Your task to perform on an android device: check battery use Image 0: 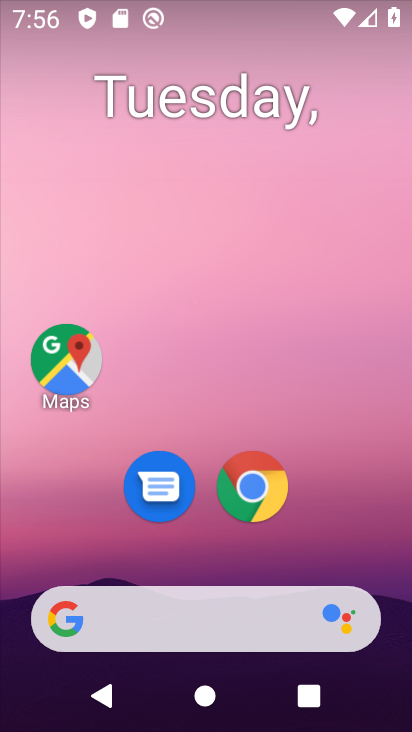
Step 0: drag from (253, 611) to (165, 36)
Your task to perform on an android device: check battery use Image 1: 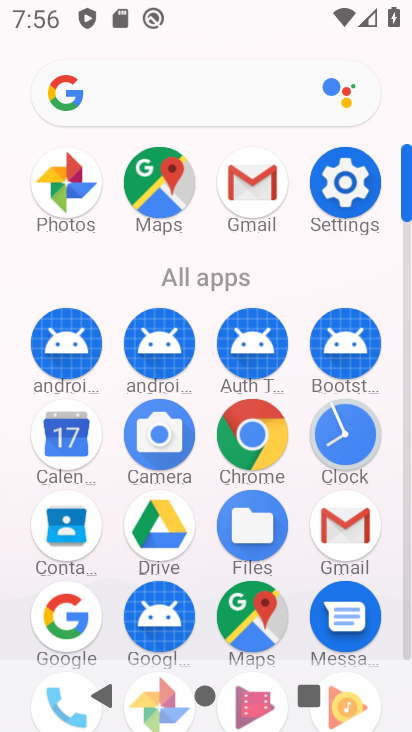
Step 1: click (364, 204)
Your task to perform on an android device: check battery use Image 2: 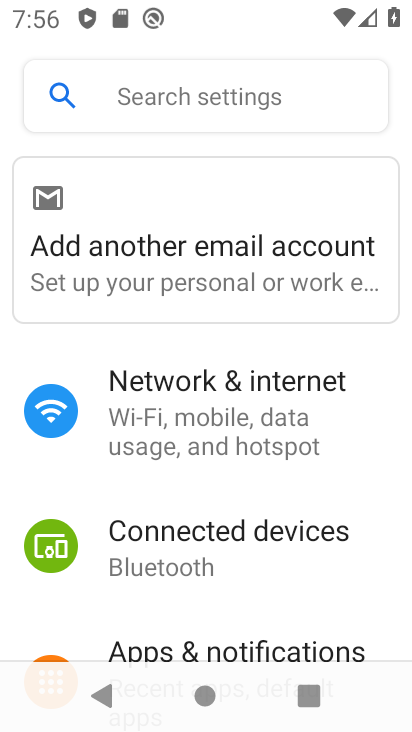
Step 2: drag from (290, 568) to (312, 89)
Your task to perform on an android device: check battery use Image 3: 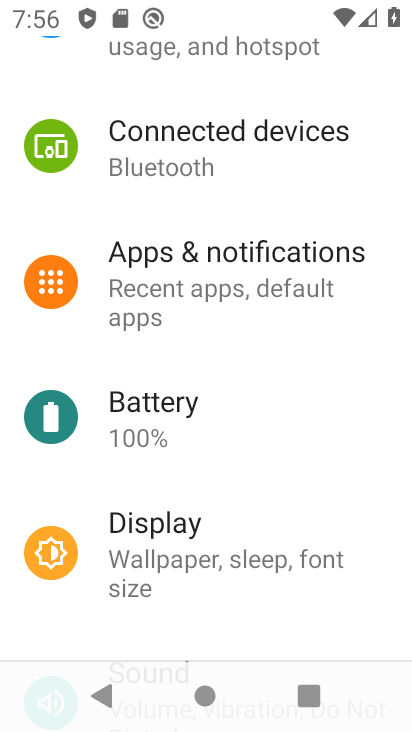
Step 3: click (292, 429)
Your task to perform on an android device: check battery use Image 4: 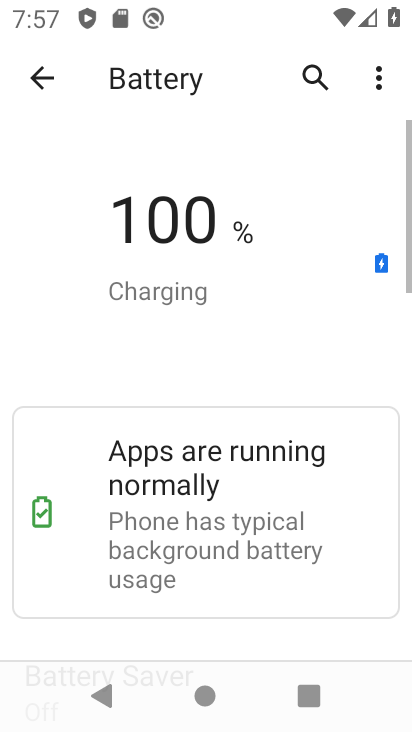
Step 4: drag from (298, 554) to (280, 118)
Your task to perform on an android device: check battery use Image 5: 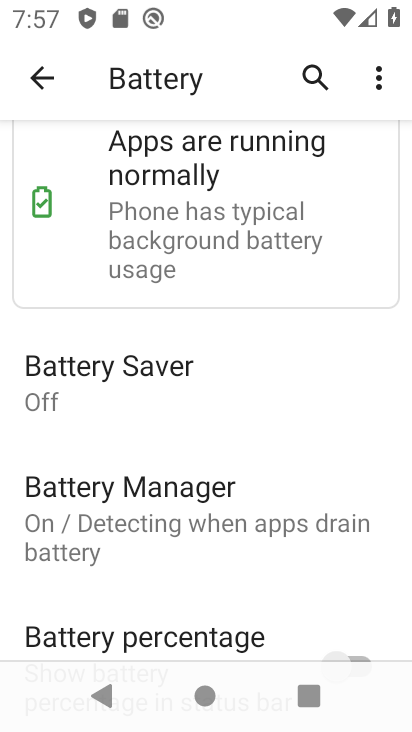
Step 5: click (371, 73)
Your task to perform on an android device: check battery use Image 6: 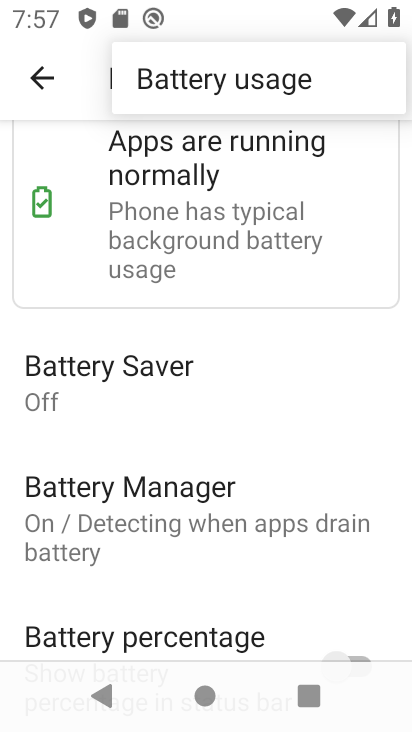
Step 6: click (358, 97)
Your task to perform on an android device: check battery use Image 7: 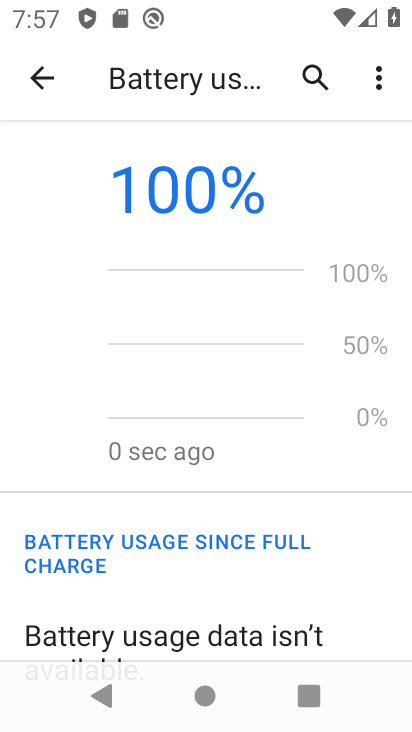
Step 7: task complete